Your task to perform on an android device: see sites visited before in the chrome app Image 0: 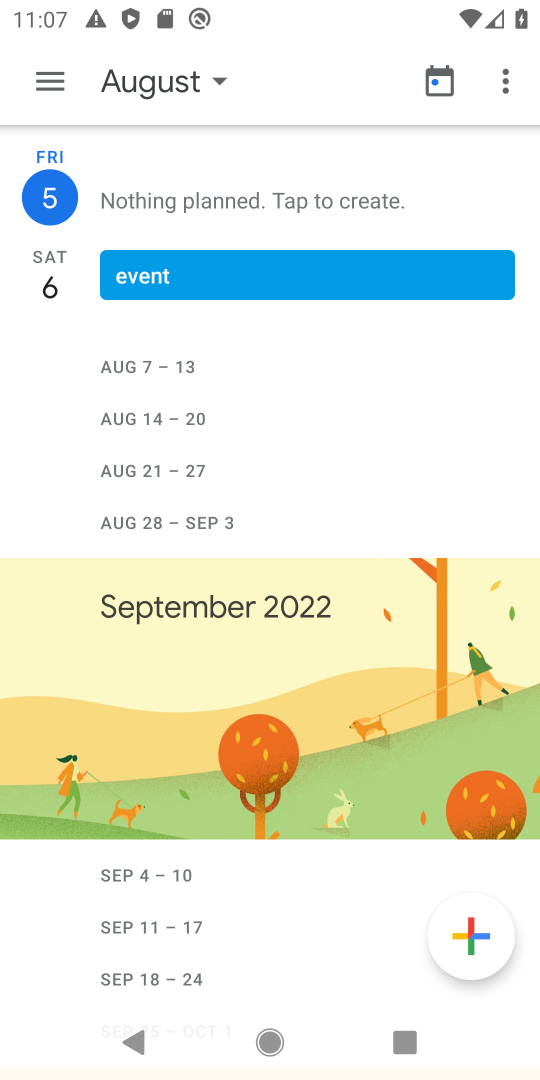
Step 0: press home button
Your task to perform on an android device: see sites visited before in the chrome app Image 1: 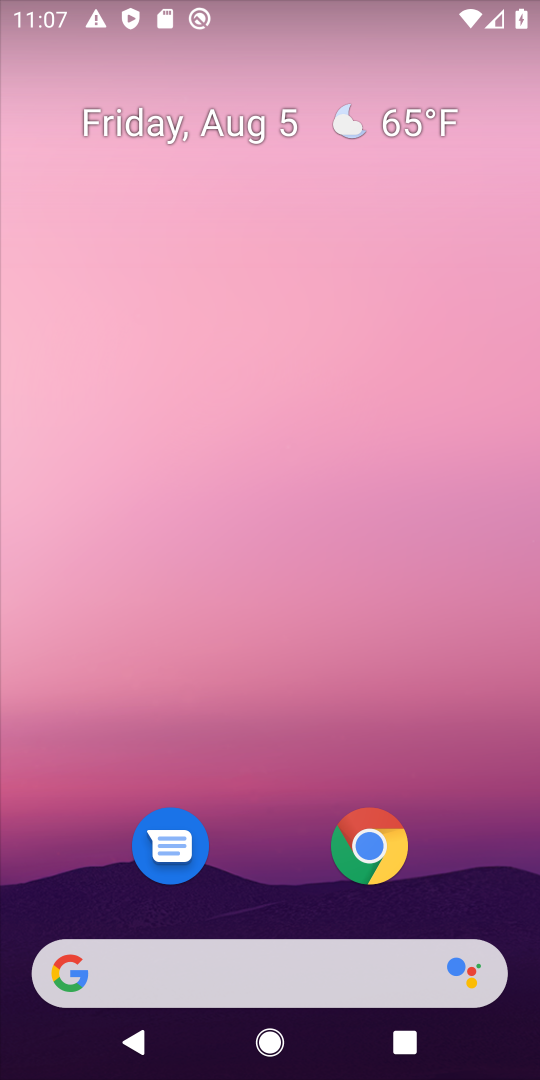
Step 1: click (367, 830)
Your task to perform on an android device: see sites visited before in the chrome app Image 2: 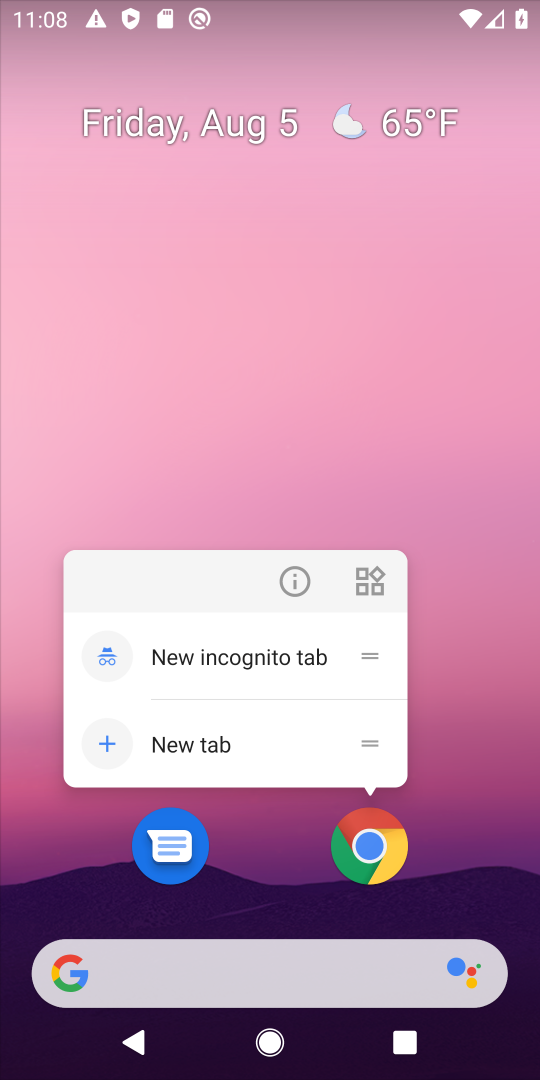
Step 2: click (367, 830)
Your task to perform on an android device: see sites visited before in the chrome app Image 3: 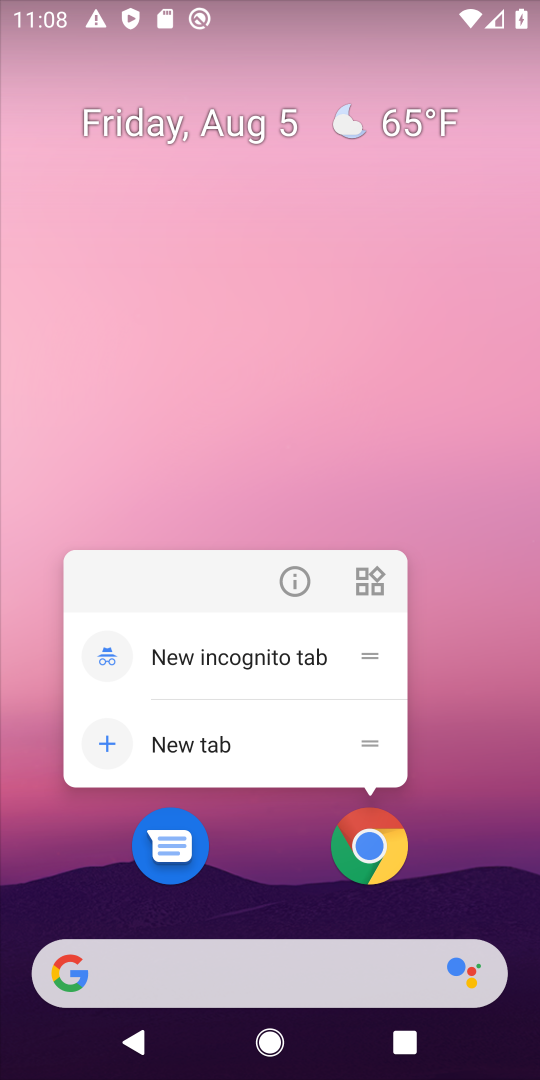
Step 3: click (367, 844)
Your task to perform on an android device: see sites visited before in the chrome app Image 4: 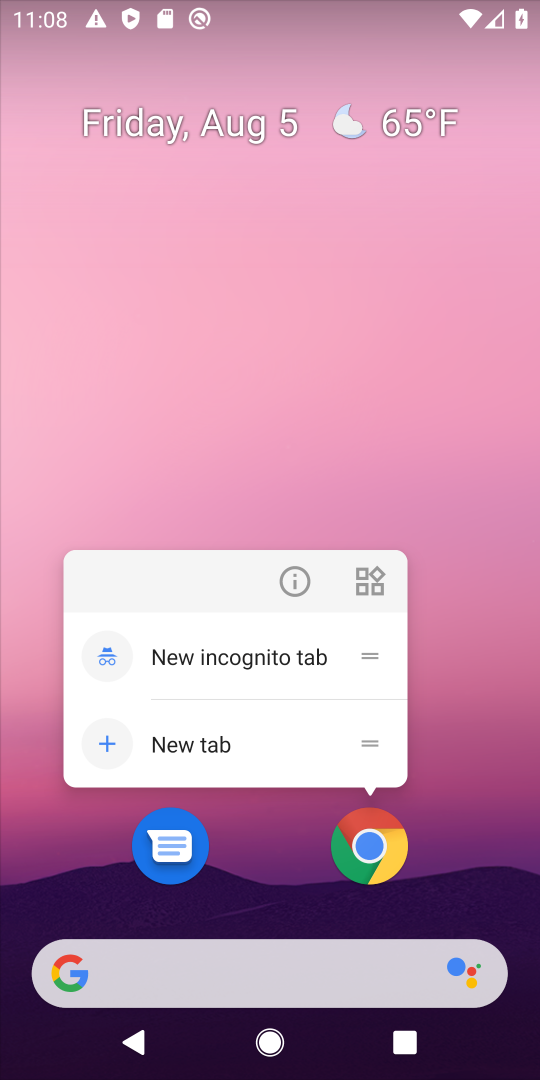
Step 4: click (367, 844)
Your task to perform on an android device: see sites visited before in the chrome app Image 5: 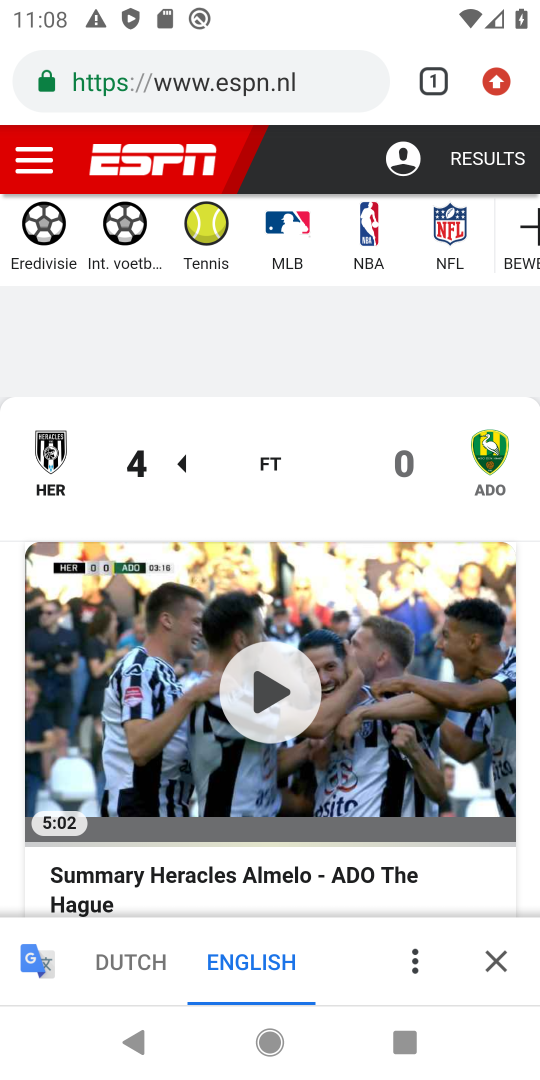
Step 5: click (501, 76)
Your task to perform on an android device: see sites visited before in the chrome app Image 6: 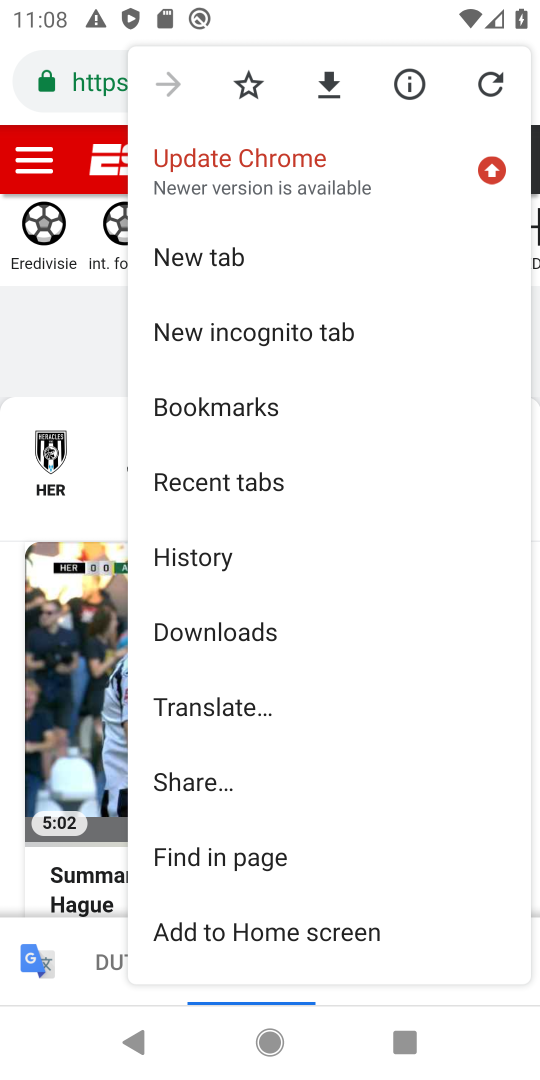
Step 6: click (201, 476)
Your task to perform on an android device: see sites visited before in the chrome app Image 7: 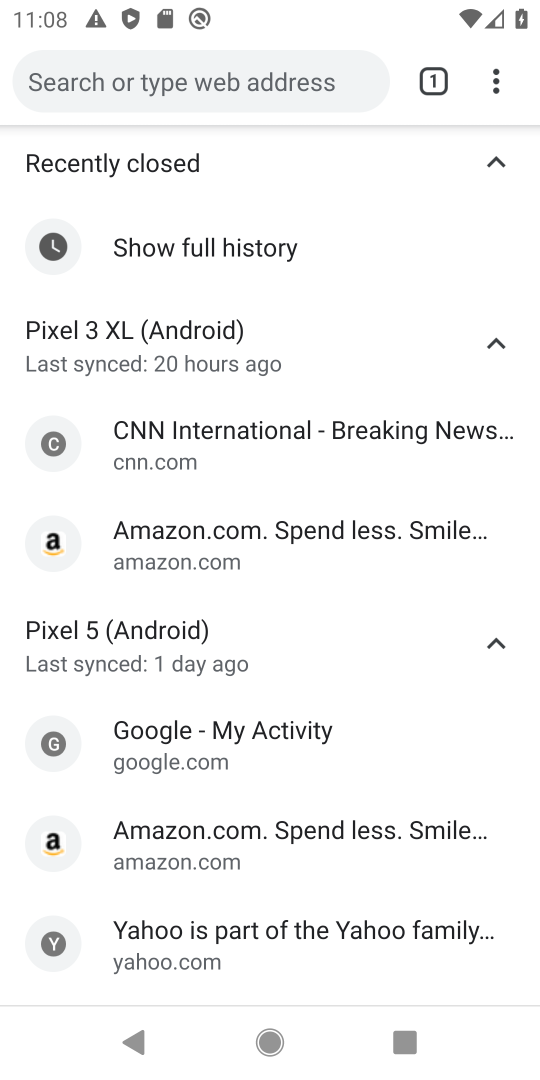
Step 7: task complete